Your task to perform on an android device: turn off notifications in google photos Image 0: 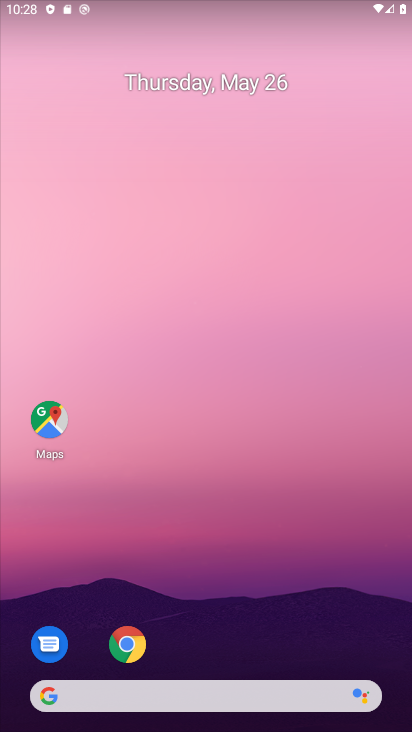
Step 0: drag from (177, 674) to (292, 134)
Your task to perform on an android device: turn off notifications in google photos Image 1: 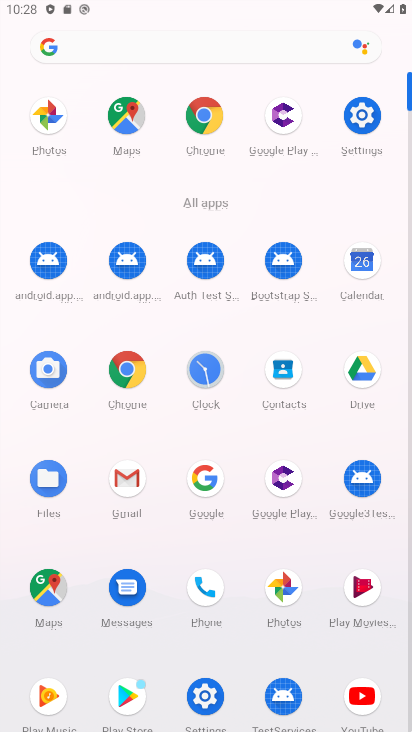
Step 1: drag from (123, 632) to (192, 364)
Your task to perform on an android device: turn off notifications in google photos Image 2: 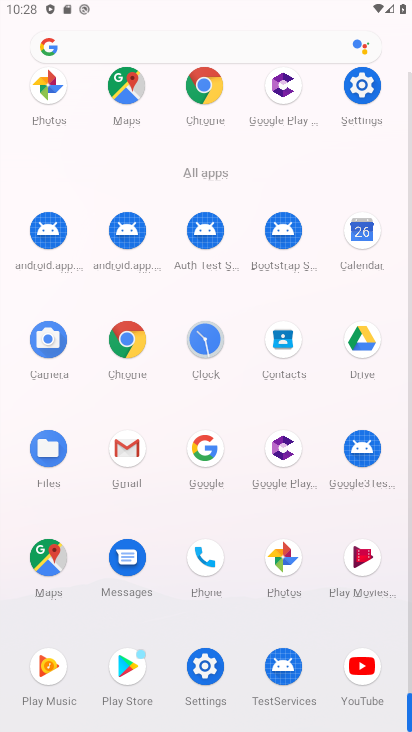
Step 2: click (285, 547)
Your task to perform on an android device: turn off notifications in google photos Image 3: 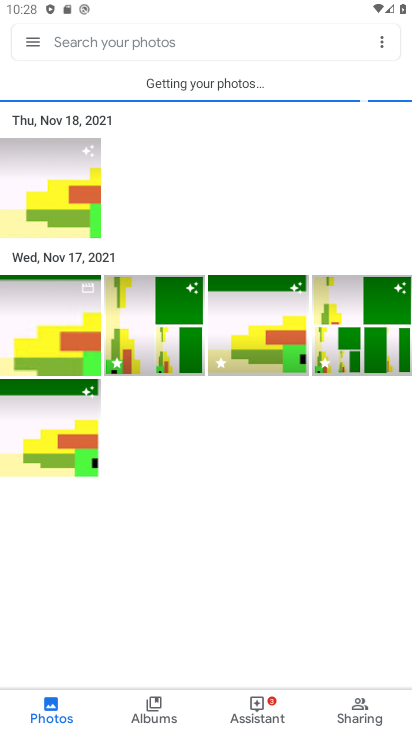
Step 3: click (31, 39)
Your task to perform on an android device: turn off notifications in google photos Image 4: 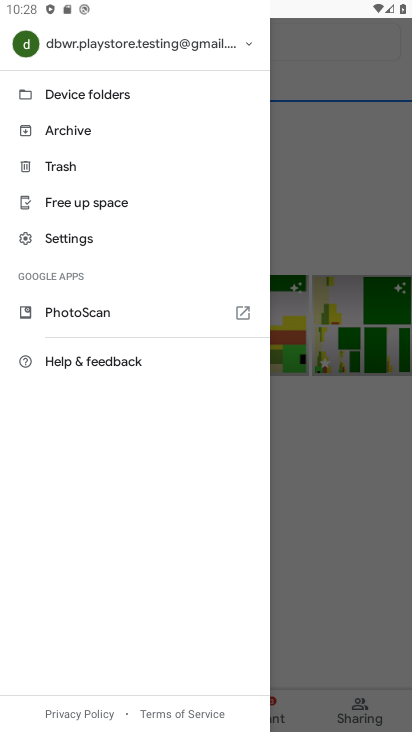
Step 4: click (104, 242)
Your task to perform on an android device: turn off notifications in google photos Image 5: 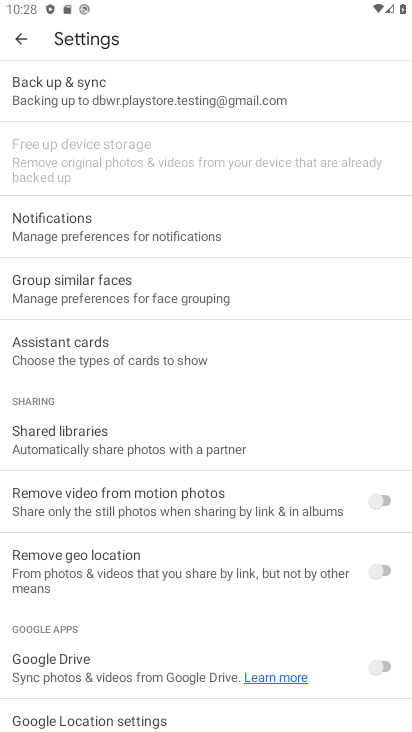
Step 5: click (135, 228)
Your task to perform on an android device: turn off notifications in google photos Image 6: 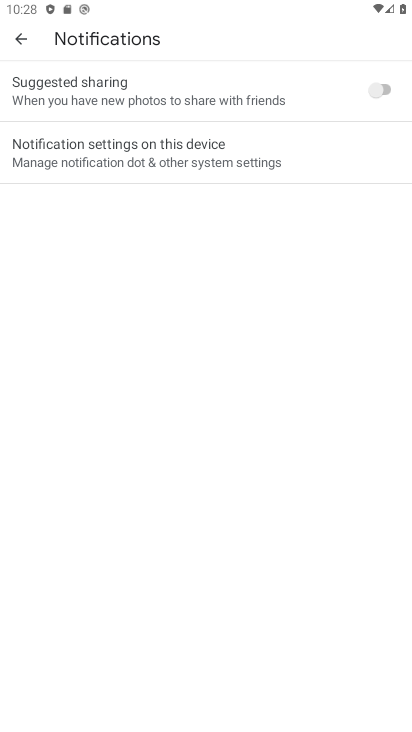
Step 6: click (226, 154)
Your task to perform on an android device: turn off notifications in google photos Image 7: 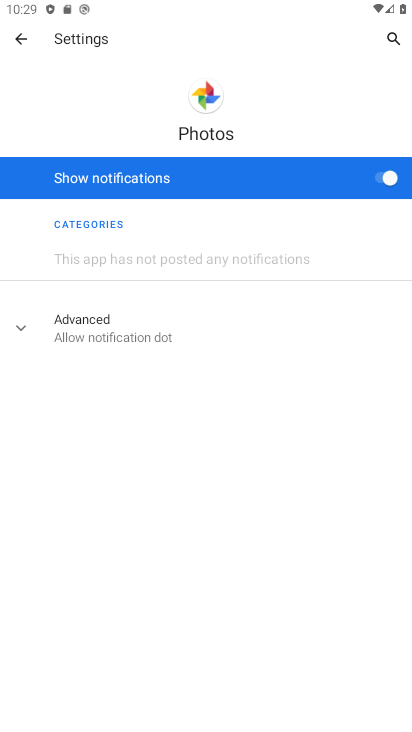
Step 7: click (379, 175)
Your task to perform on an android device: turn off notifications in google photos Image 8: 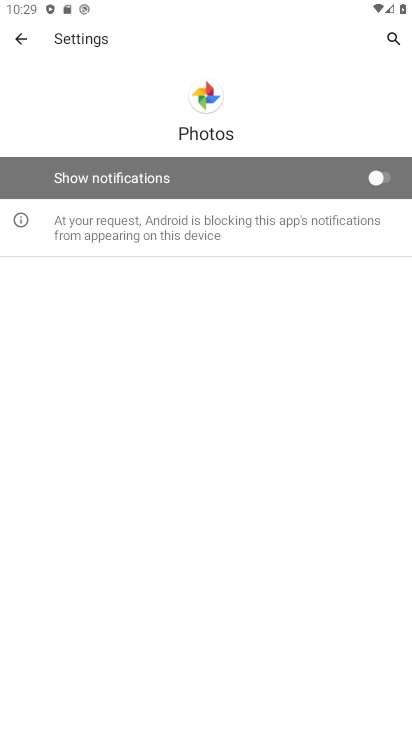
Step 8: task complete